Your task to perform on an android device: Search for "logitech g502" on costco, select the first entry, add it to the cart, then select checkout. Image 0: 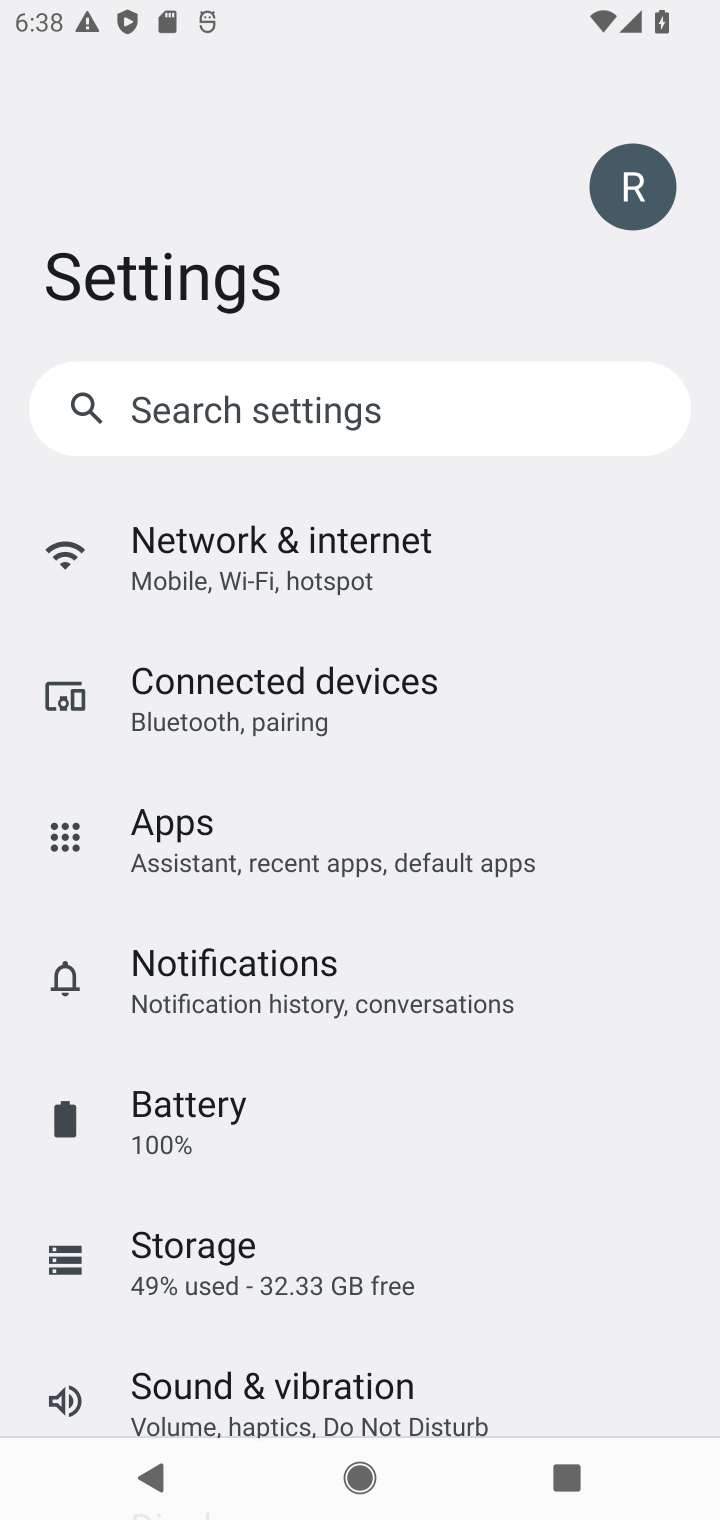
Step 0: press home button
Your task to perform on an android device: Search for "logitech g502" on costco, select the first entry, add it to the cart, then select checkout. Image 1: 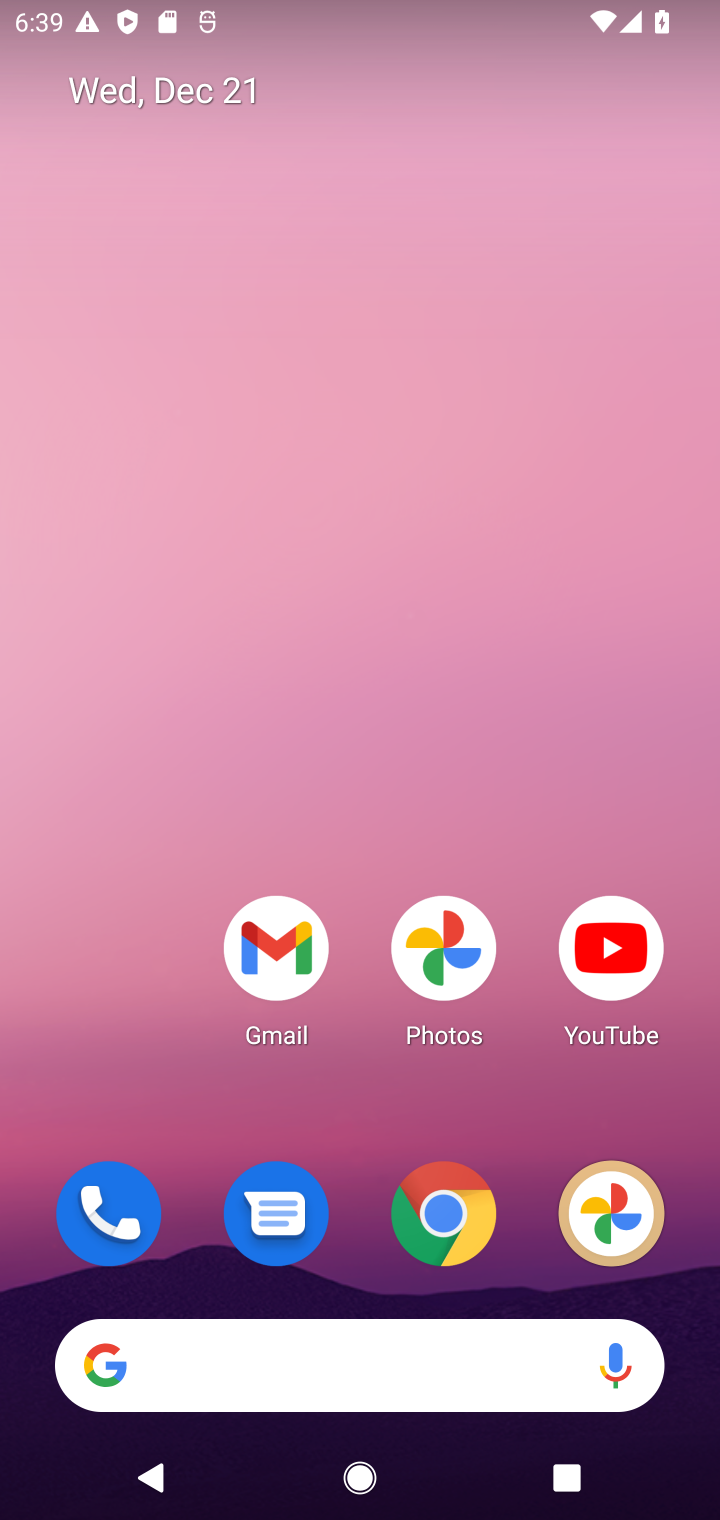
Step 1: click (465, 1242)
Your task to perform on an android device: Search for "logitech g502" on costco, select the first entry, add it to the cart, then select checkout. Image 2: 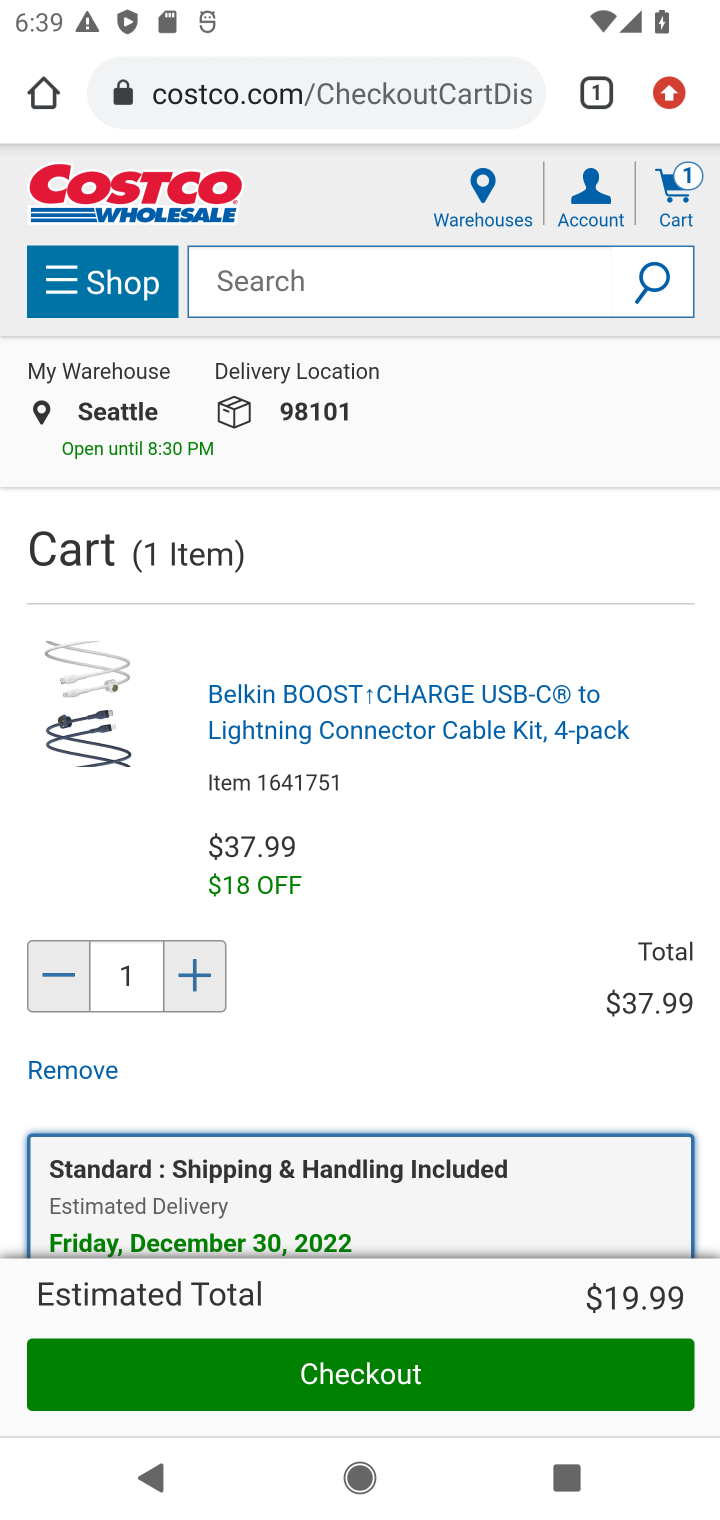
Step 2: click (249, 104)
Your task to perform on an android device: Search for "logitech g502" on costco, select the first entry, add it to the cart, then select checkout. Image 3: 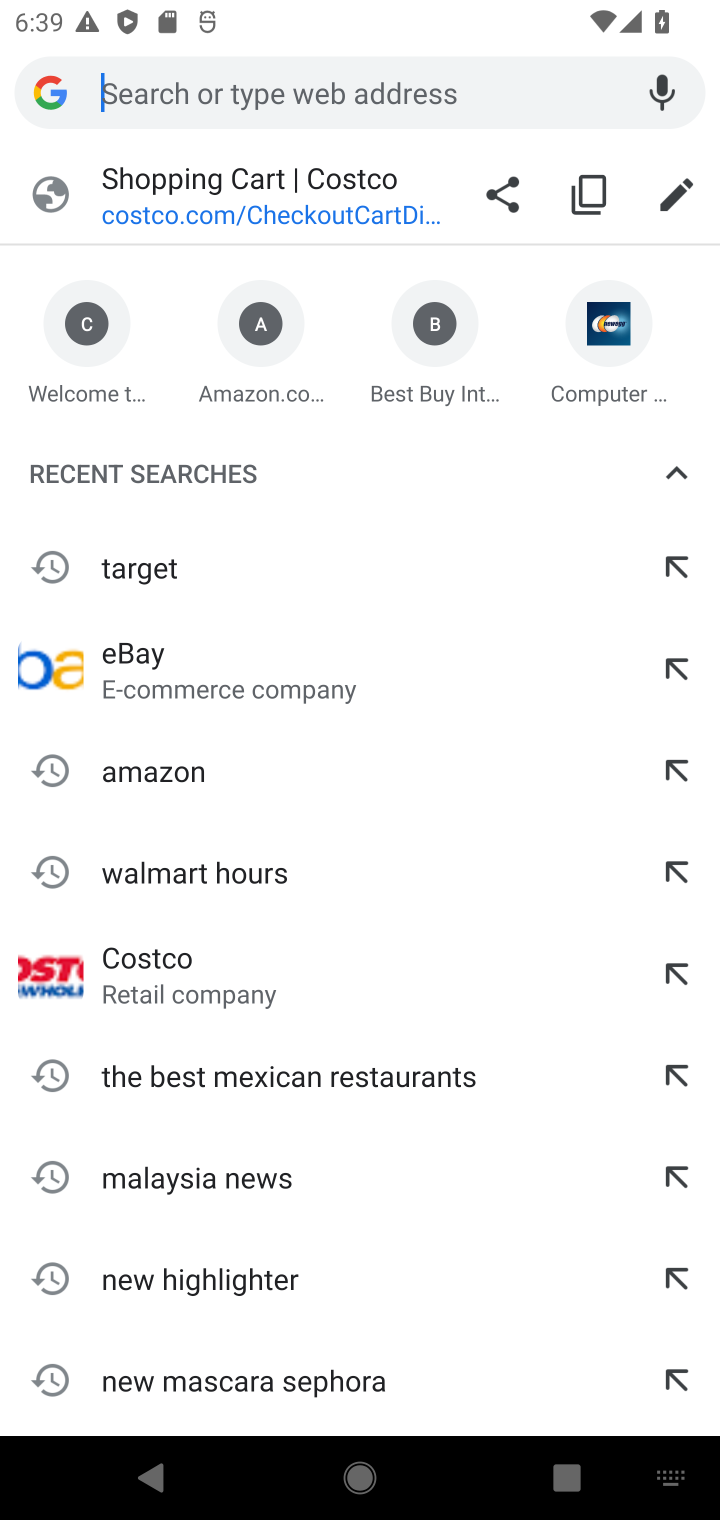
Step 3: click (187, 214)
Your task to perform on an android device: Search for "logitech g502" on costco, select the first entry, add it to the cart, then select checkout. Image 4: 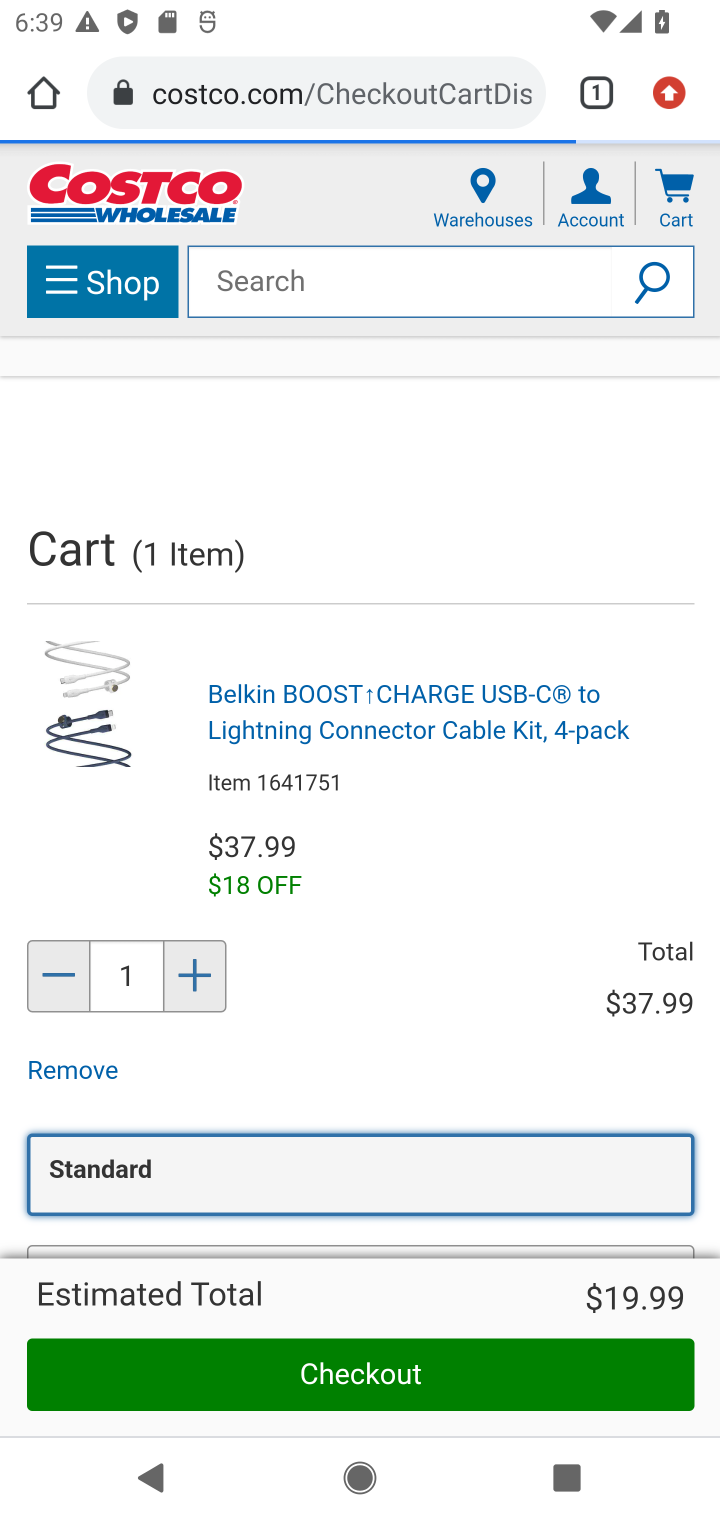
Step 4: click (279, 287)
Your task to perform on an android device: Search for "logitech g502" on costco, select the first entry, add it to the cart, then select checkout. Image 5: 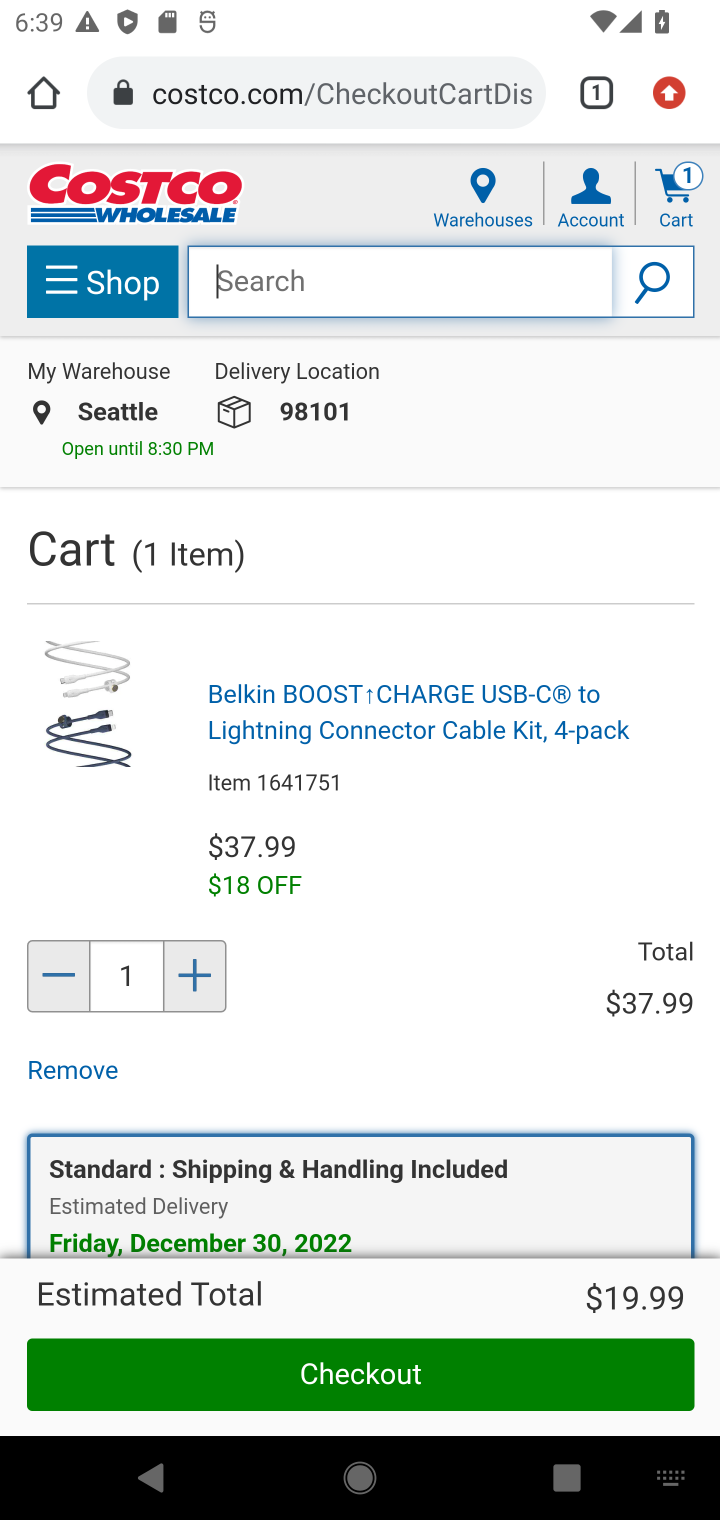
Step 5: type "logitech g502"
Your task to perform on an android device: Search for "logitech g502" on costco, select the first entry, add it to the cart, then select checkout. Image 6: 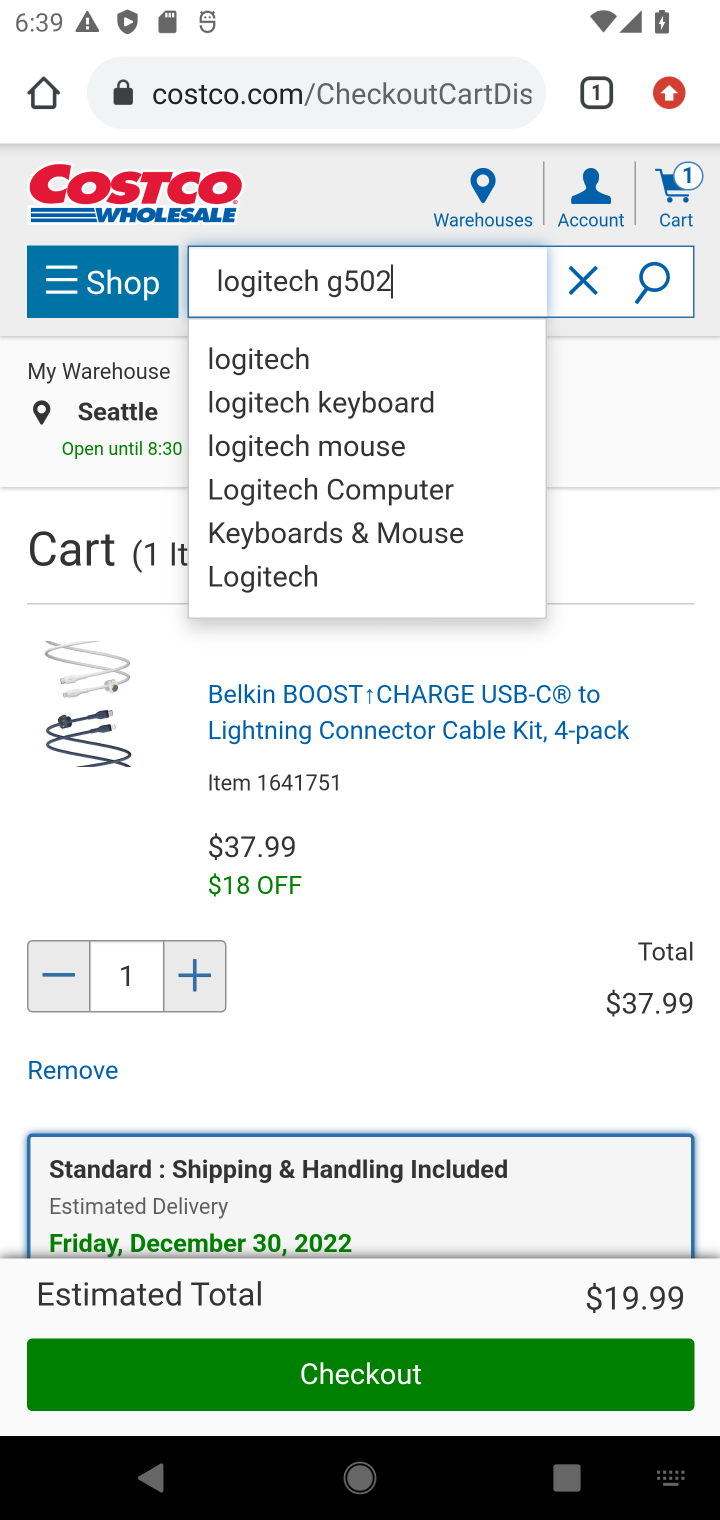
Step 6: click (640, 278)
Your task to perform on an android device: Search for "logitech g502" on costco, select the first entry, add it to the cart, then select checkout. Image 7: 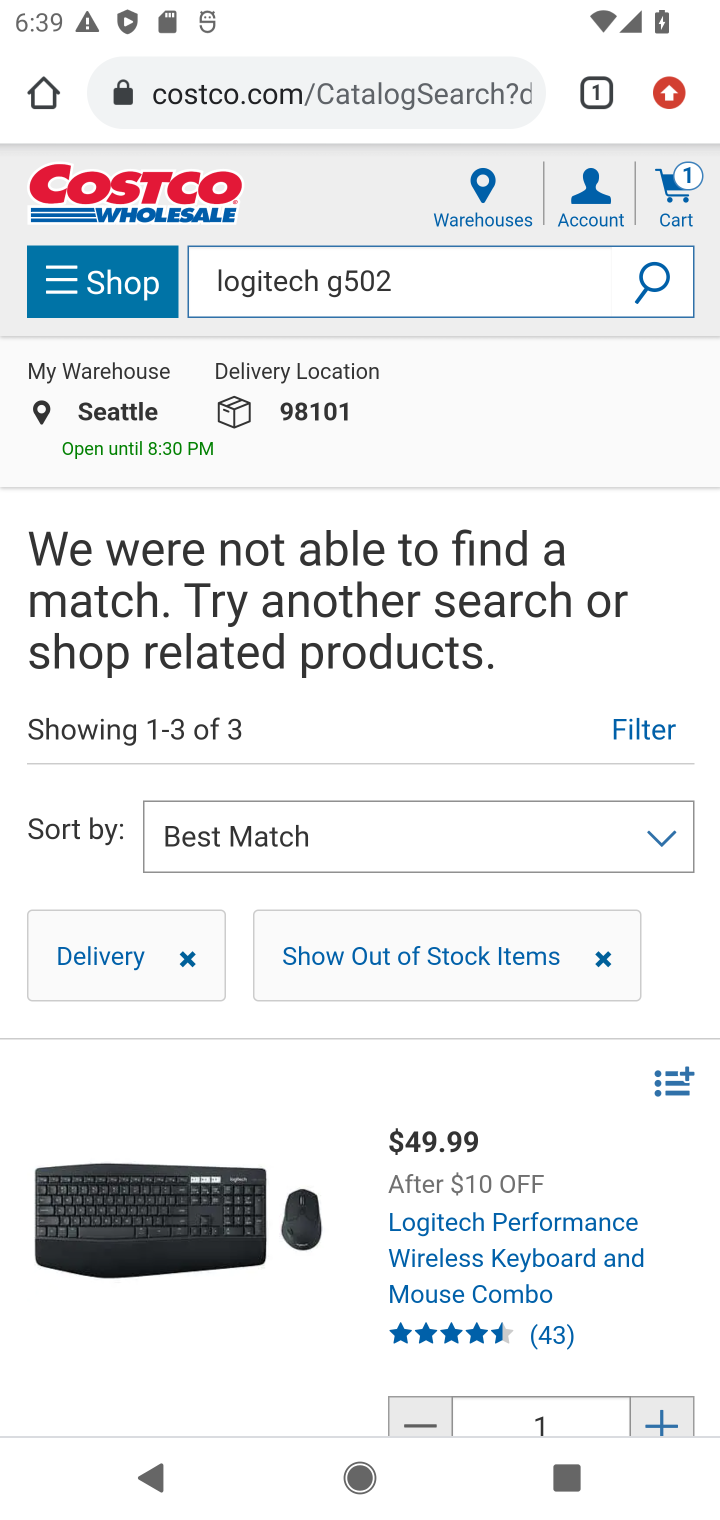
Step 7: drag from (319, 1338) to (370, 585)
Your task to perform on an android device: Search for "logitech g502" on costco, select the first entry, add it to the cart, then select checkout. Image 8: 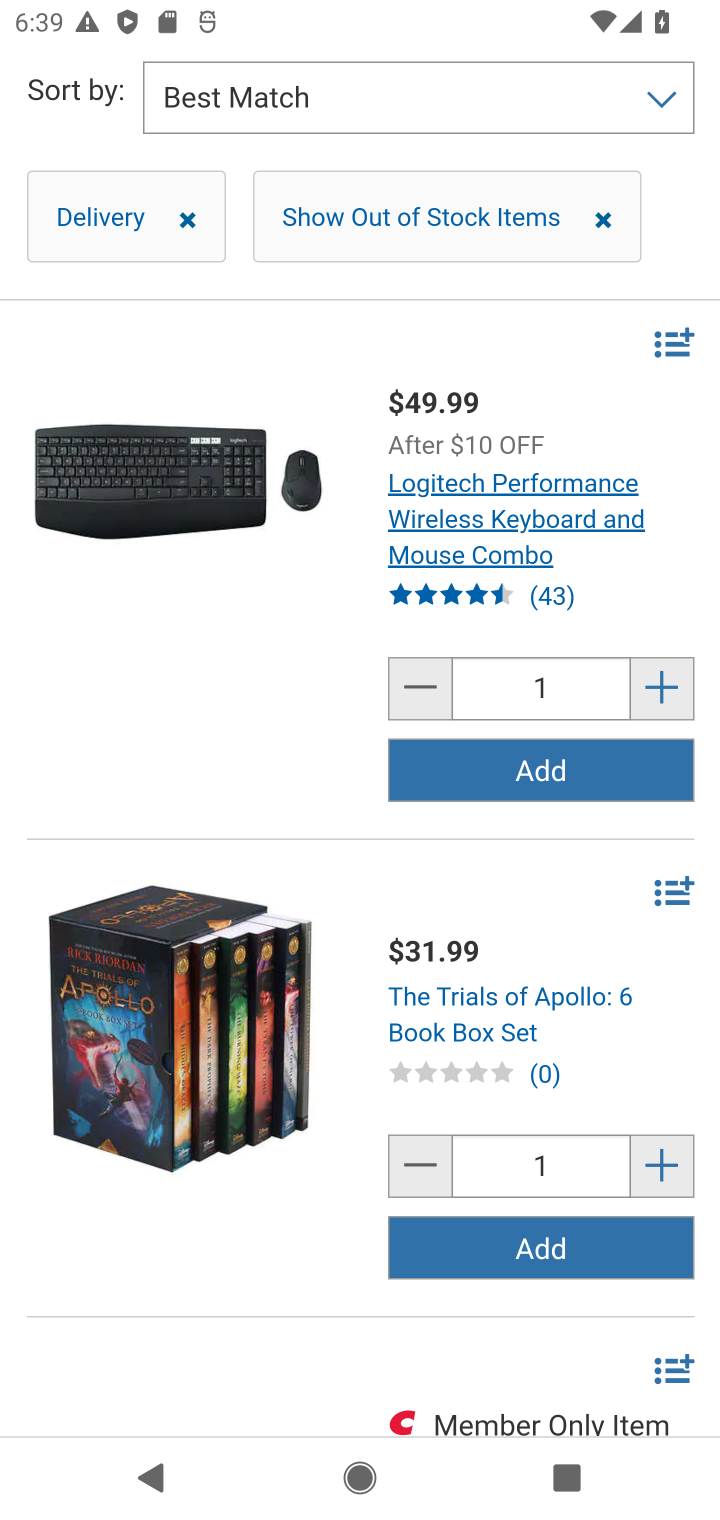
Step 8: click (524, 800)
Your task to perform on an android device: Search for "logitech g502" on costco, select the first entry, add it to the cart, then select checkout. Image 9: 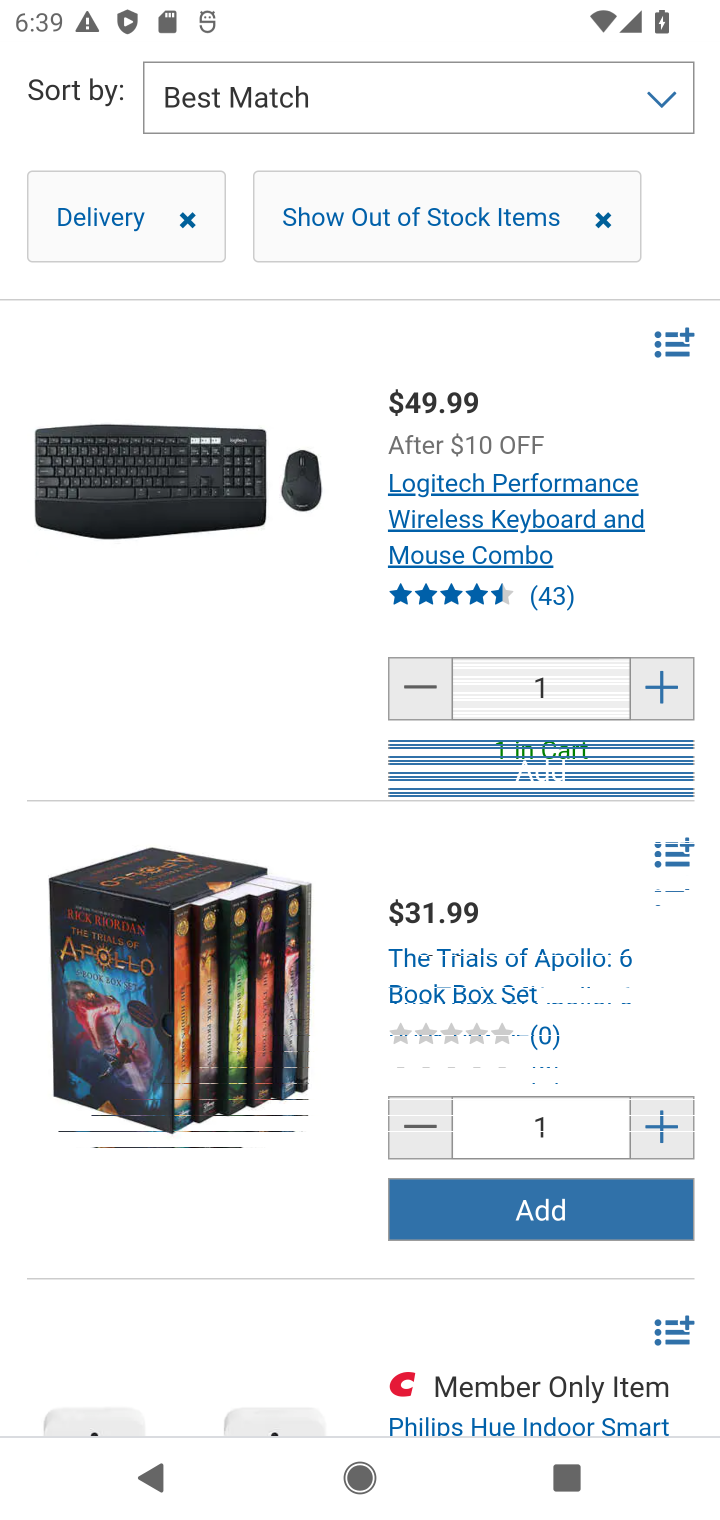
Step 9: task complete